Your task to perform on an android device: Find coffee shops on Maps Image 0: 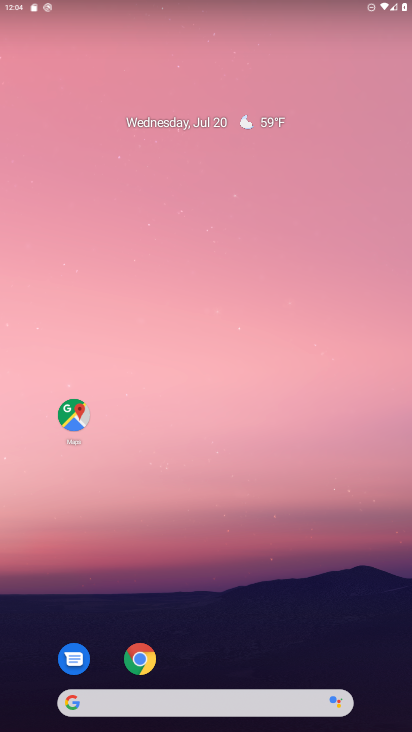
Step 0: drag from (342, 602) to (265, 42)
Your task to perform on an android device: Find coffee shops on Maps Image 1: 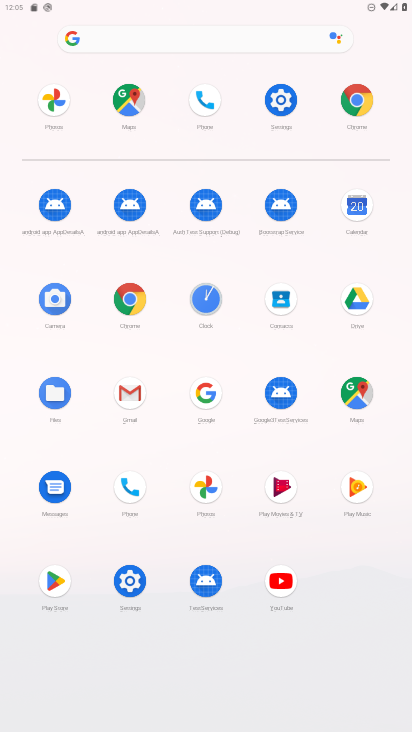
Step 1: click (356, 380)
Your task to perform on an android device: Find coffee shops on Maps Image 2: 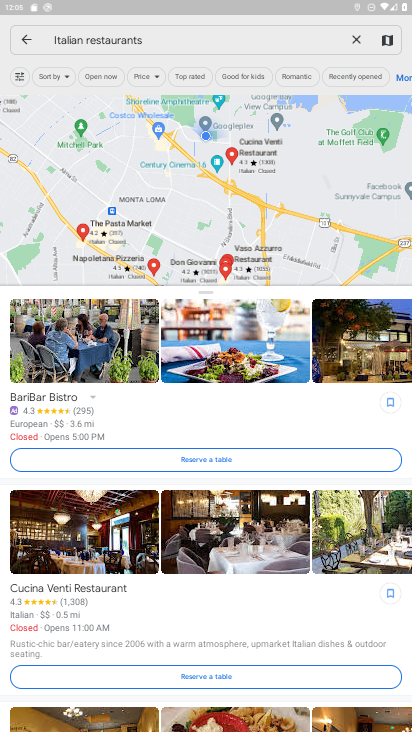
Step 2: click (351, 40)
Your task to perform on an android device: Find coffee shops on Maps Image 3: 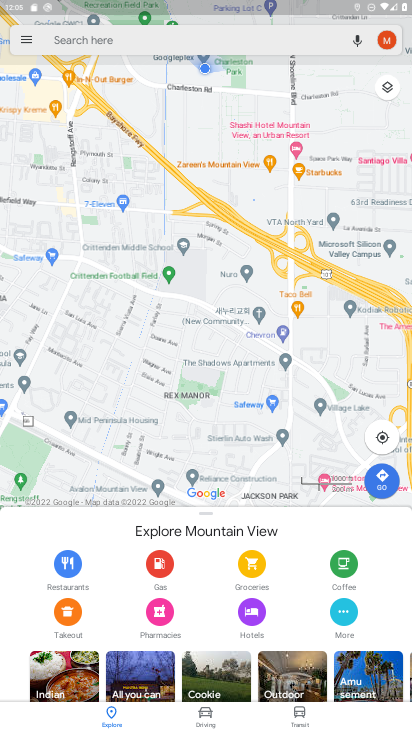
Step 3: click (261, 41)
Your task to perform on an android device: Find coffee shops on Maps Image 4: 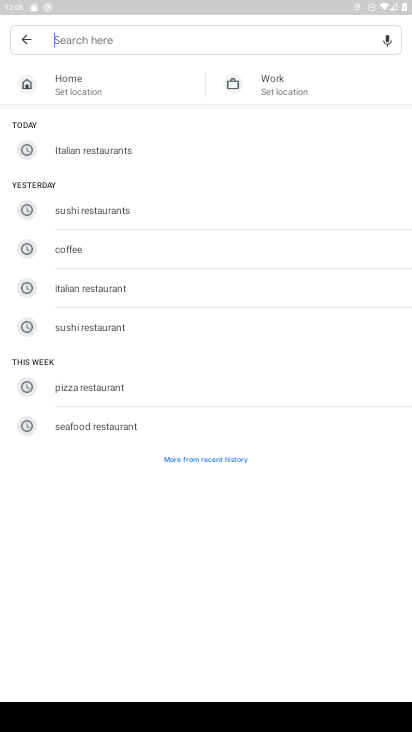
Step 4: type "coffee shops"
Your task to perform on an android device: Find coffee shops on Maps Image 5: 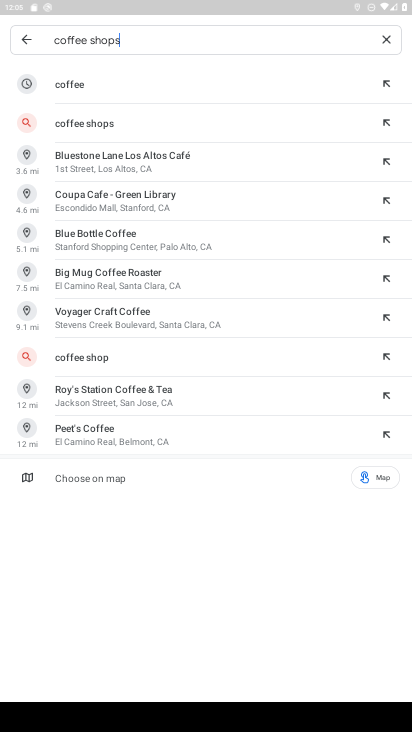
Step 5: click (121, 121)
Your task to perform on an android device: Find coffee shops on Maps Image 6: 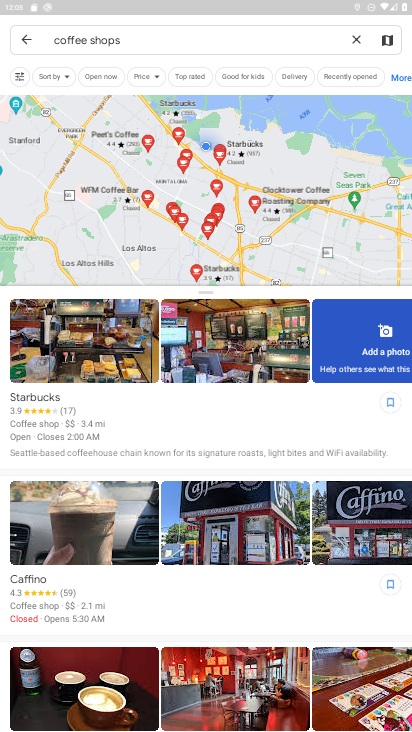
Step 6: task complete